Your task to perform on an android device: Turn on the flashlight Image 0: 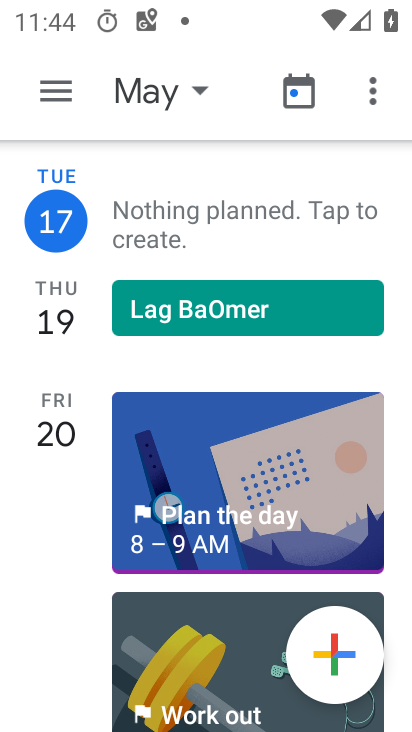
Step 0: press home button
Your task to perform on an android device: Turn on the flashlight Image 1: 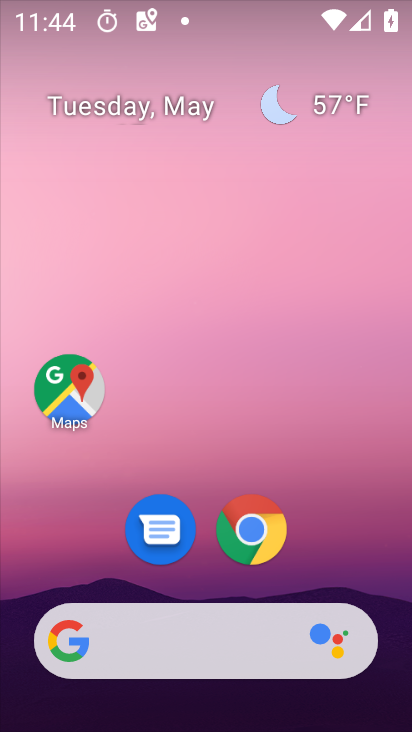
Step 1: drag from (187, 22) to (318, 613)
Your task to perform on an android device: Turn on the flashlight Image 2: 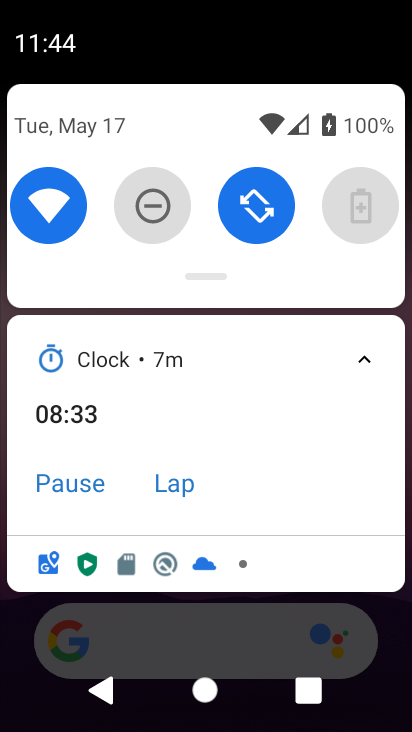
Step 2: drag from (179, 104) to (243, 540)
Your task to perform on an android device: Turn on the flashlight Image 3: 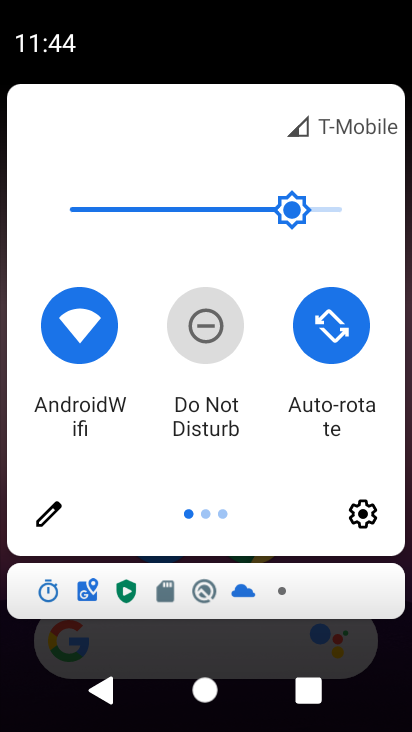
Step 3: click (370, 503)
Your task to perform on an android device: Turn on the flashlight Image 4: 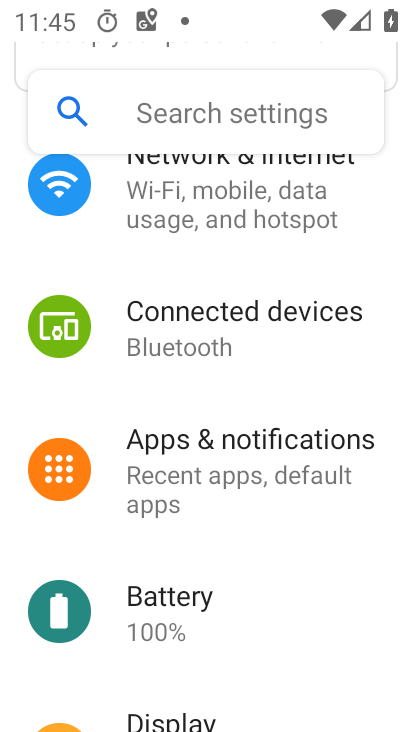
Step 4: task complete